Your task to perform on an android device: toggle priority inbox in the gmail app Image 0: 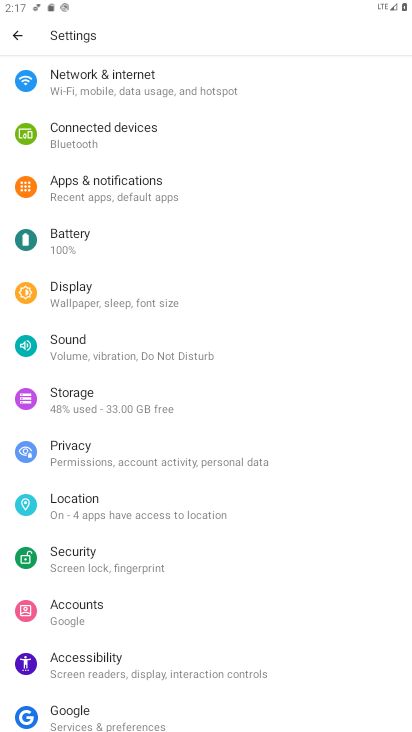
Step 0: press home button
Your task to perform on an android device: toggle priority inbox in the gmail app Image 1: 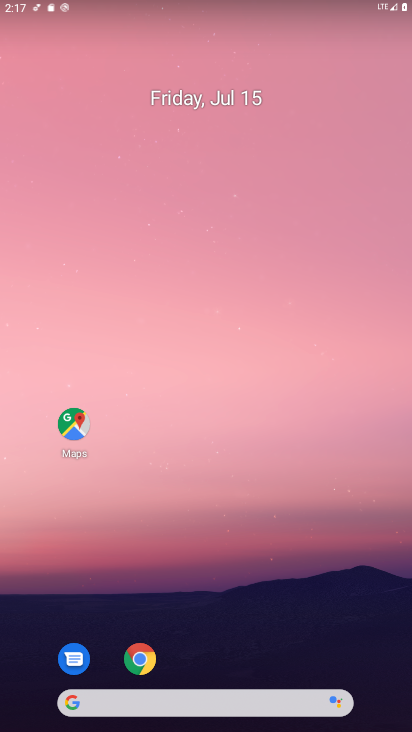
Step 1: drag from (264, 668) to (276, 195)
Your task to perform on an android device: toggle priority inbox in the gmail app Image 2: 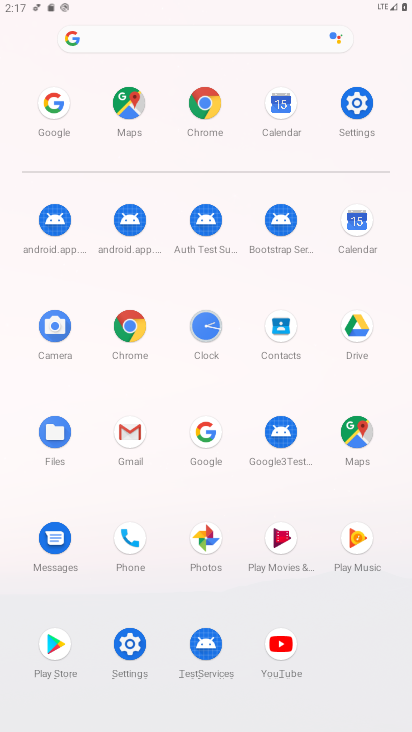
Step 2: click (114, 429)
Your task to perform on an android device: toggle priority inbox in the gmail app Image 3: 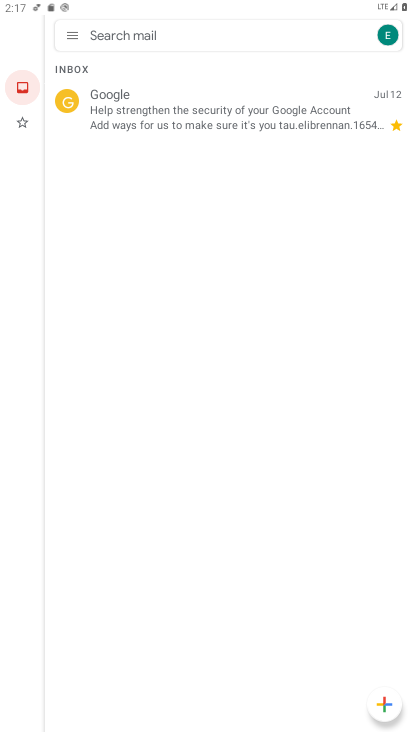
Step 3: click (69, 41)
Your task to perform on an android device: toggle priority inbox in the gmail app Image 4: 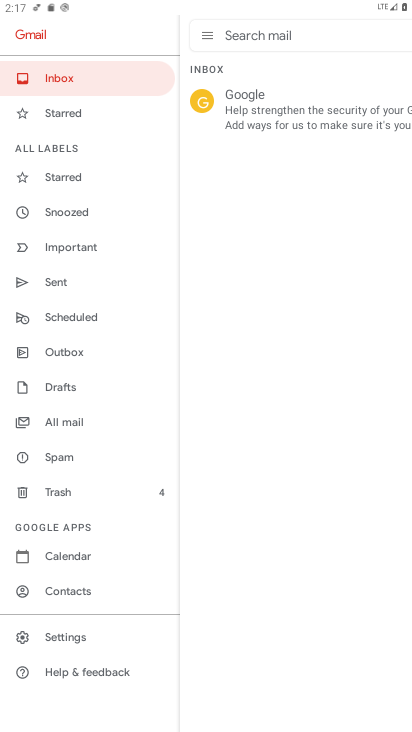
Step 4: click (50, 641)
Your task to perform on an android device: toggle priority inbox in the gmail app Image 5: 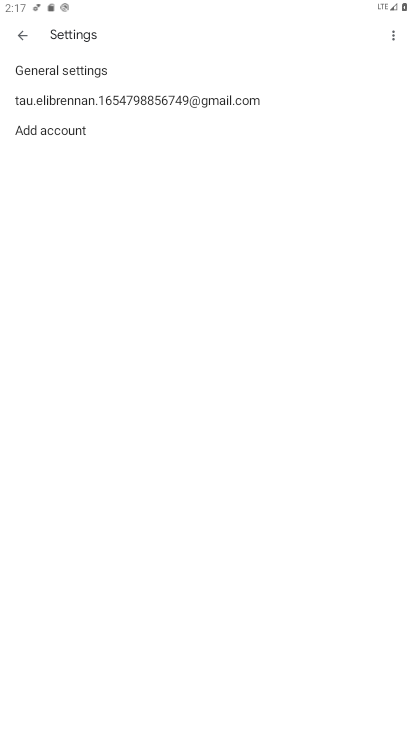
Step 5: click (129, 107)
Your task to perform on an android device: toggle priority inbox in the gmail app Image 6: 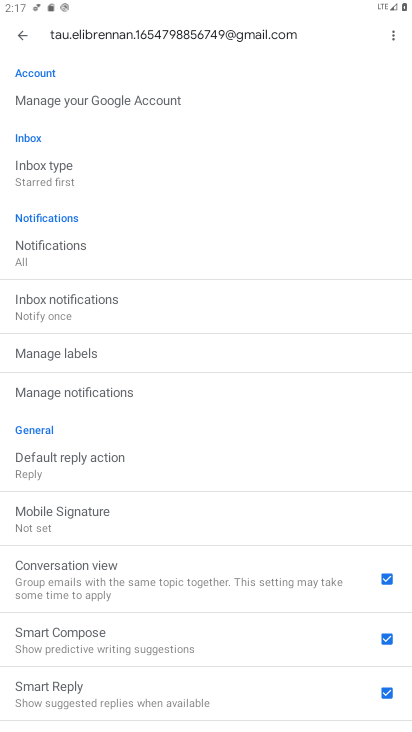
Step 6: click (58, 162)
Your task to perform on an android device: toggle priority inbox in the gmail app Image 7: 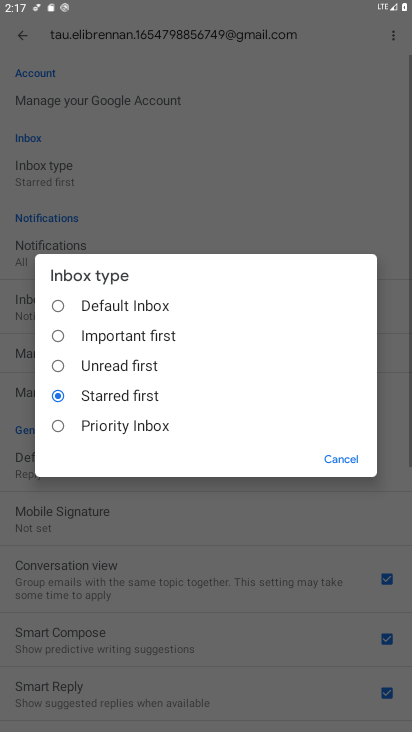
Step 7: click (121, 438)
Your task to perform on an android device: toggle priority inbox in the gmail app Image 8: 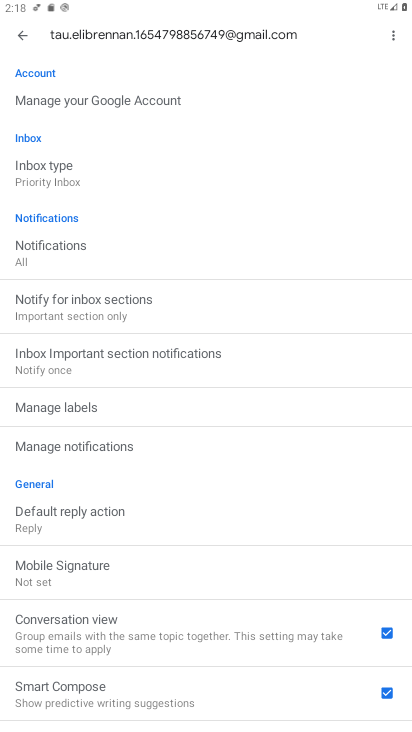
Step 8: task complete